Your task to perform on an android device: change notifications settings Image 0: 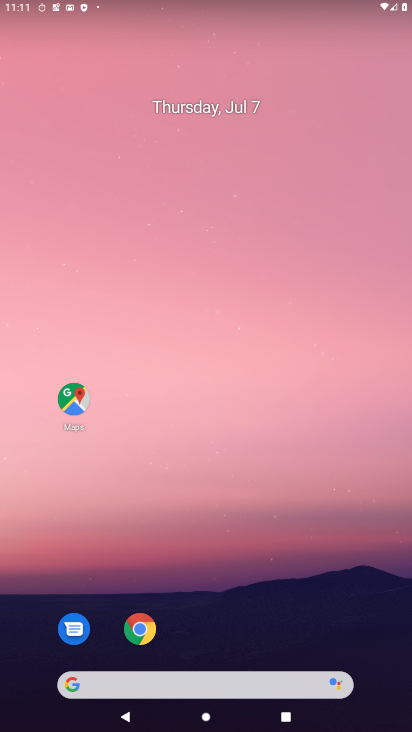
Step 0: drag from (273, 629) to (253, 49)
Your task to perform on an android device: change notifications settings Image 1: 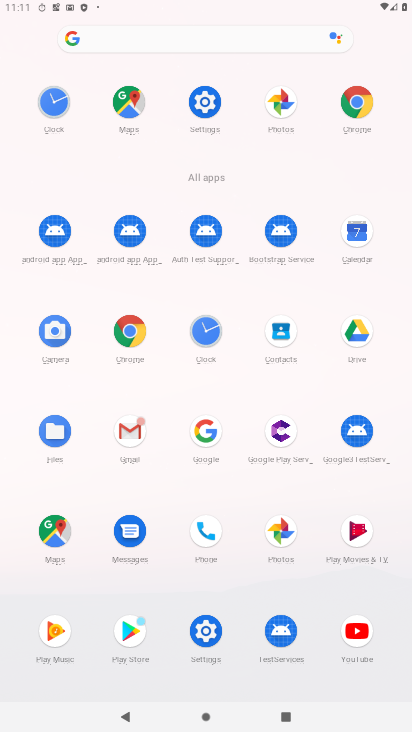
Step 1: click (203, 111)
Your task to perform on an android device: change notifications settings Image 2: 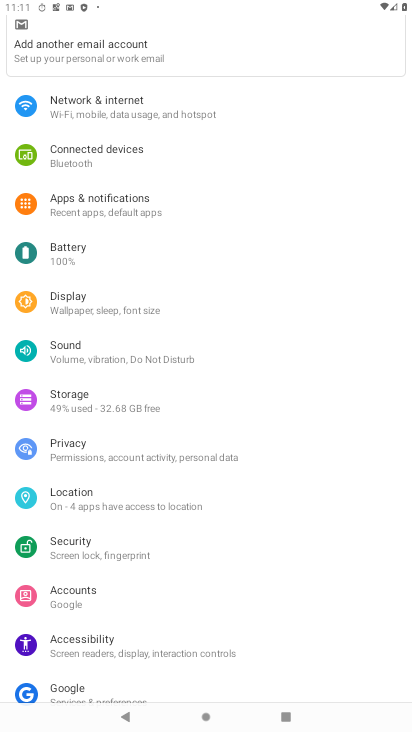
Step 2: click (110, 209)
Your task to perform on an android device: change notifications settings Image 3: 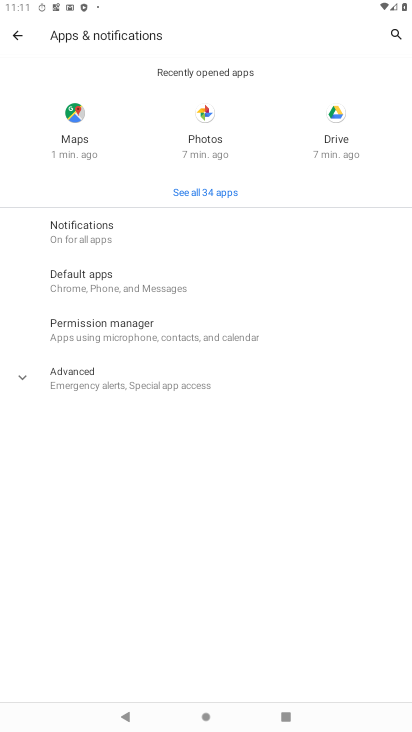
Step 3: click (137, 232)
Your task to perform on an android device: change notifications settings Image 4: 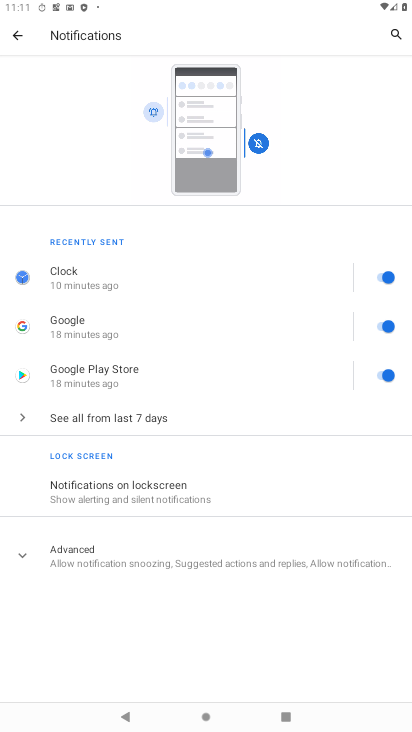
Step 4: task complete